Your task to perform on an android device: remove spam from my inbox in the gmail app Image 0: 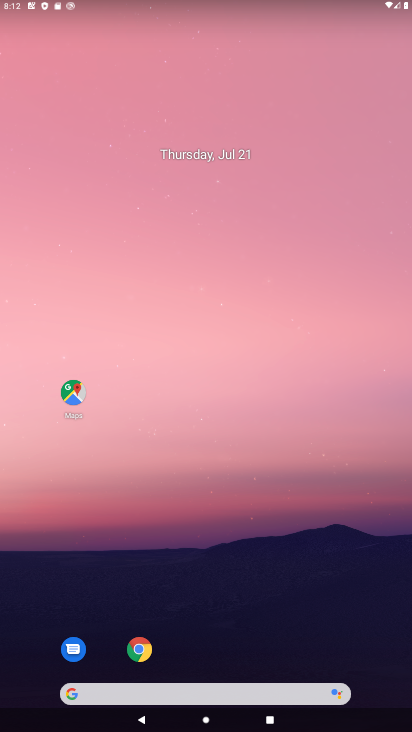
Step 0: drag from (230, 647) to (113, 8)
Your task to perform on an android device: remove spam from my inbox in the gmail app Image 1: 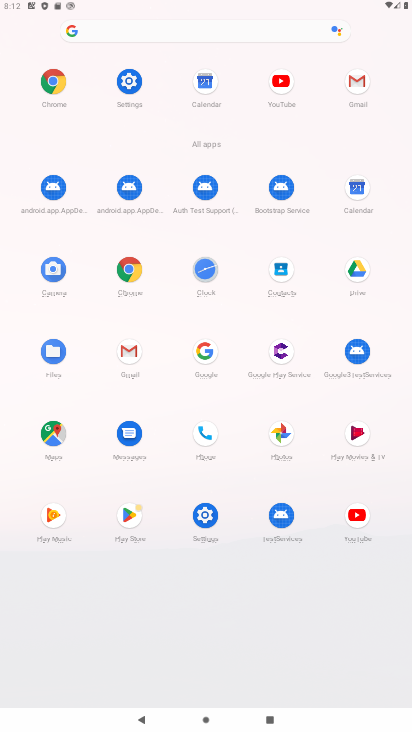
Step 1: click (127, 355)
Your task to perform on an android device: remove spam from my inbox in the gmail app Image 2: 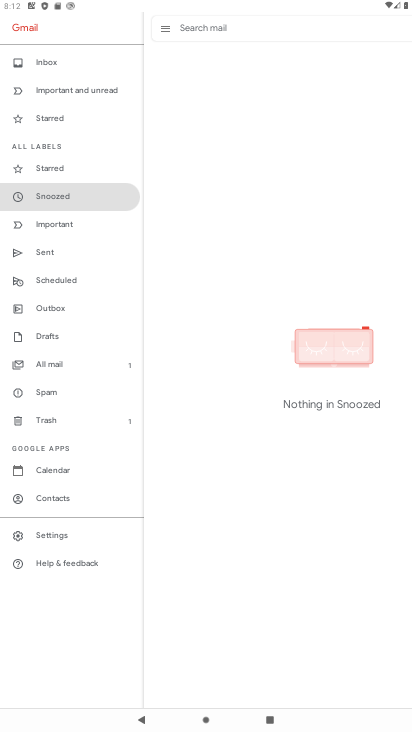
Step 2: click (56, 397)
Your task to perform on an android device: remove spam from my inbox in the gmail app Image 3: 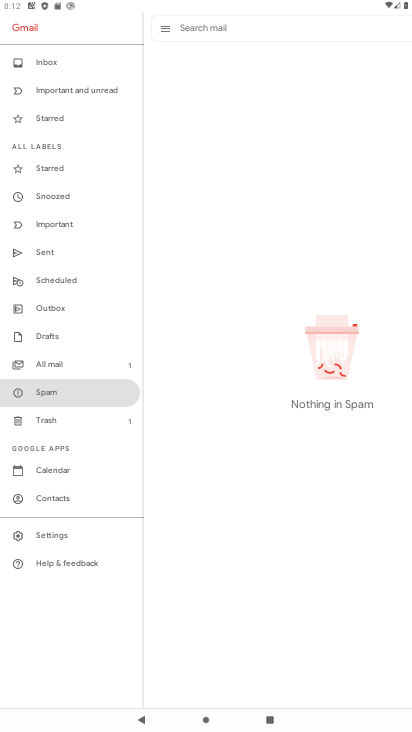
Step 3: task complete